Your task to perform on an android device: Check the news Image 0: 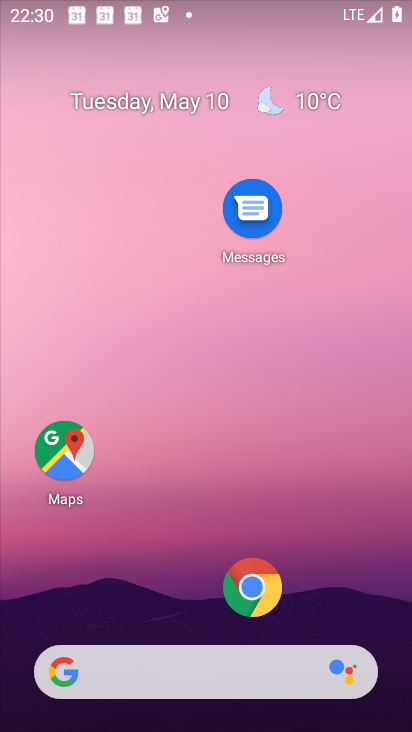
Step 0: click (196, 668)
Your task to perform on an android device: Check the news Image 1: 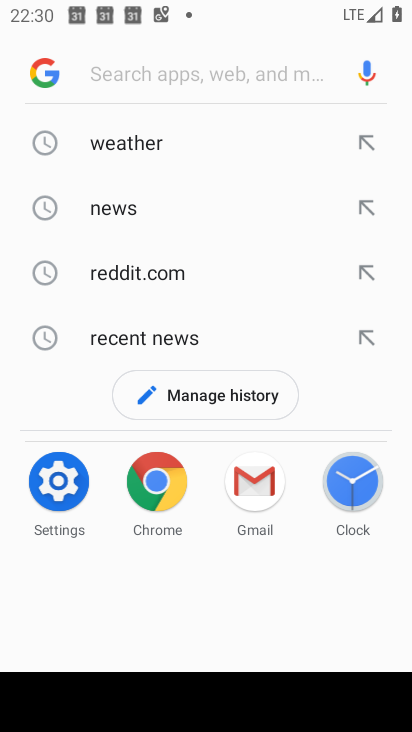
Step 1: click (168, 202)
Your task to perform on an android device: Check the news Image 2: 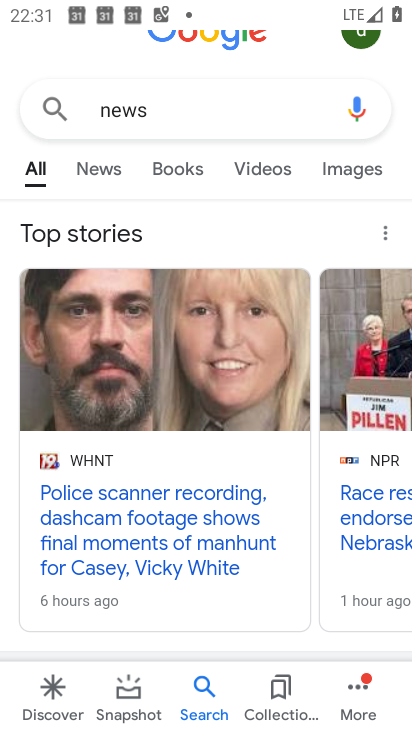
Step 2: press home button
Your task to perform on an android device: Check the news Image 3: 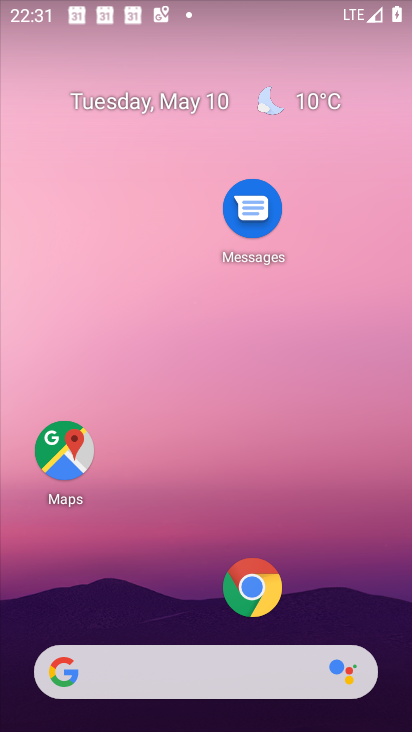
Step 3: click (184, 682)
Your task to perform on an android device: Check the news Image 4: 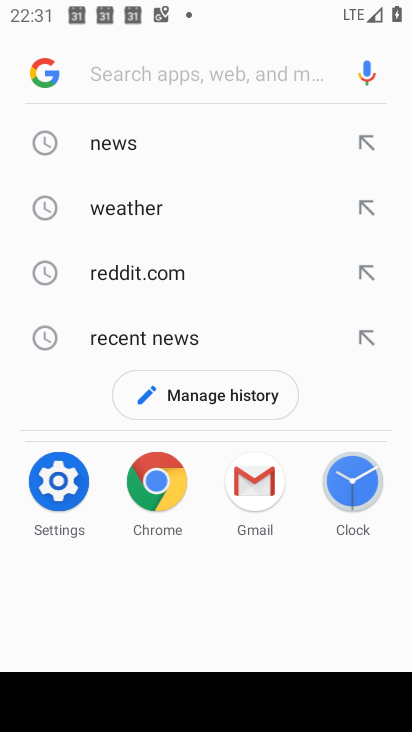
Step 4: click (178, 146)
Your task to perform on an android device: Check the news Image 5: 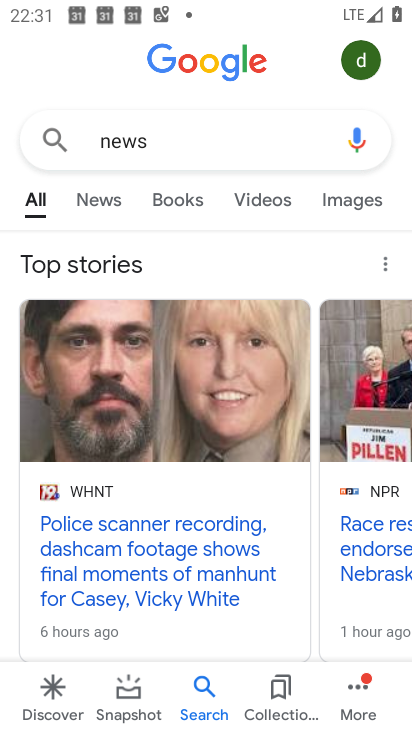
Step 5: task complete